Your task to perform on an android device: change the clock display to digital Image 0: 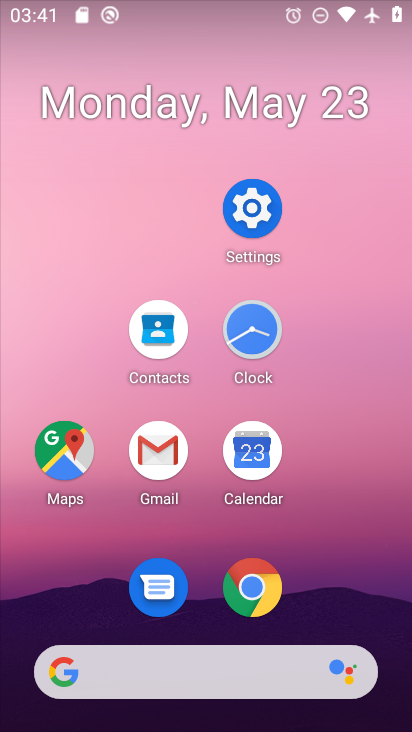
Step 0: click (252, 220)
Your task to perform on an android device: change the clock display to digital Image 1: 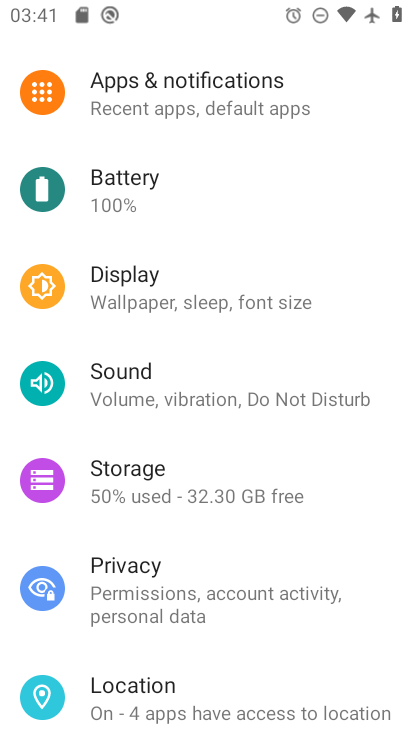
Step 1: click (237, 316)
Your task to perform on an android device: change the clock display to digital Image 2: 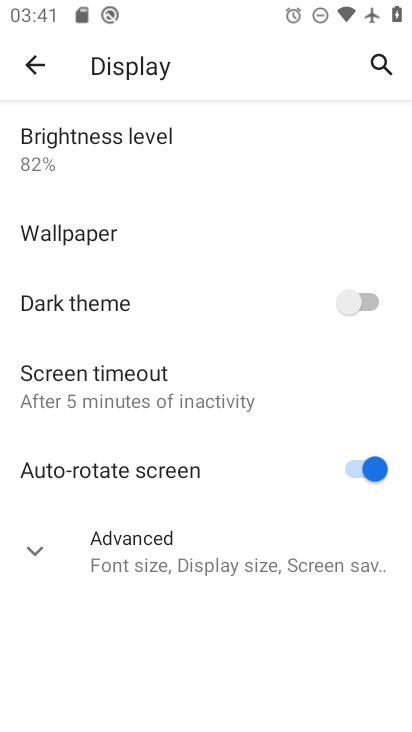
Step 2: press home button
Your task to perform on an android device: change the clock display to digital Image 3: 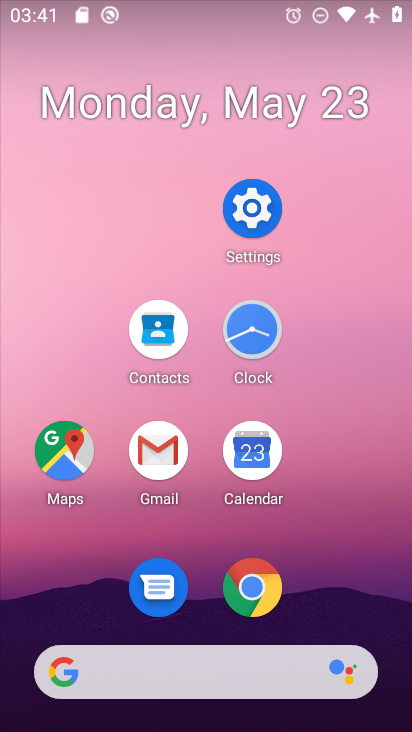
Step 3: click (243, 358)
Your task to perform on an android device: change the clock display to digital Image 4: 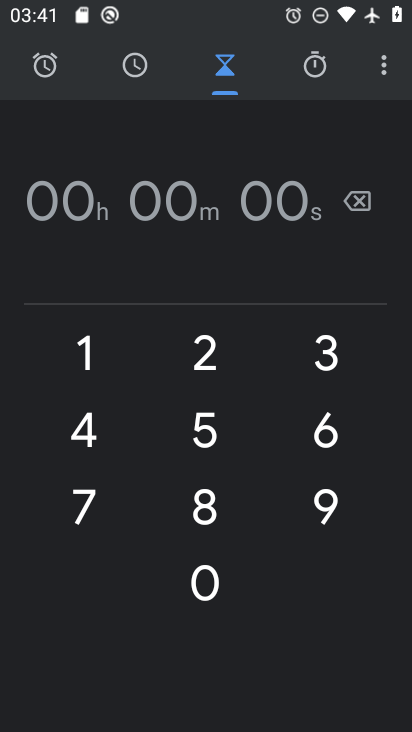
Step 4: click (390, 78)
Your task to perform on an android device: change the clock display to digital Image 5: 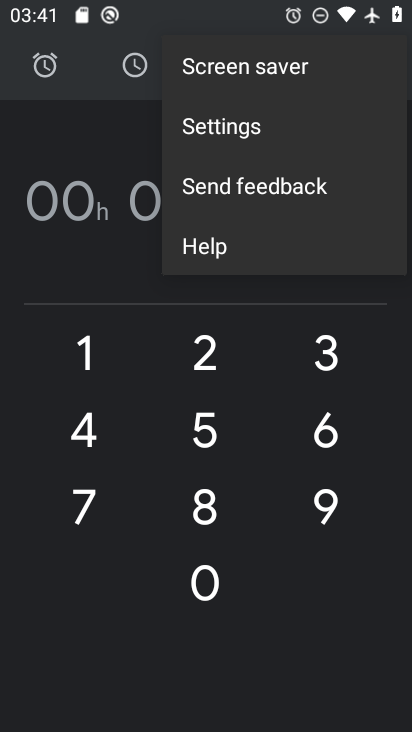
Step 5: click (246, 124)
Your task to perform on an android device: change the clock display to digital Image 6: 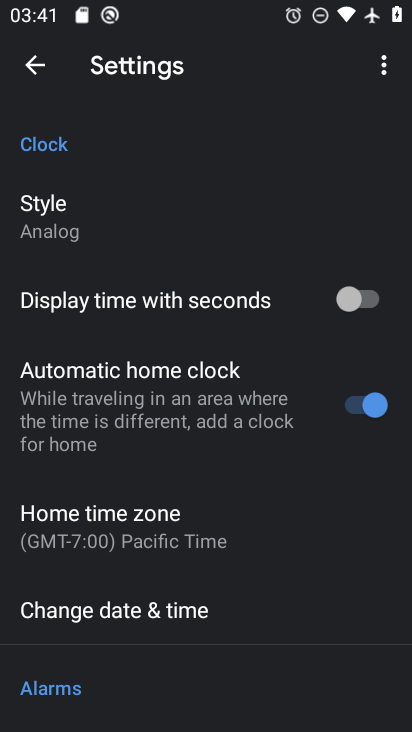
Step 6: click (163, 214)
Your task to perform on an android device: change the clock display to digital Image 7: 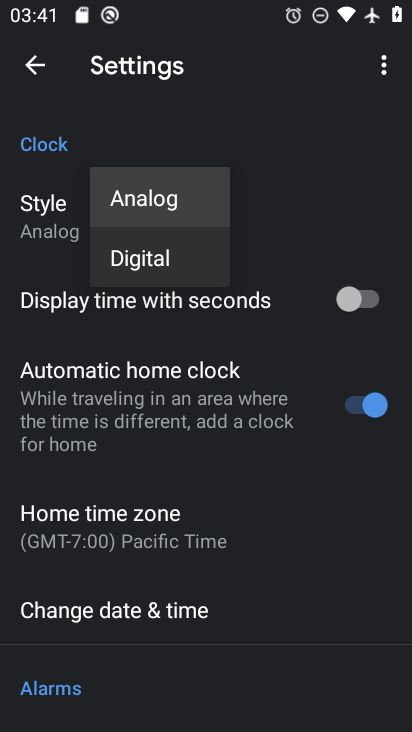
Step 7: click (156, 248)
Your task to perform on an android device: change the clock display to digital Image 8: 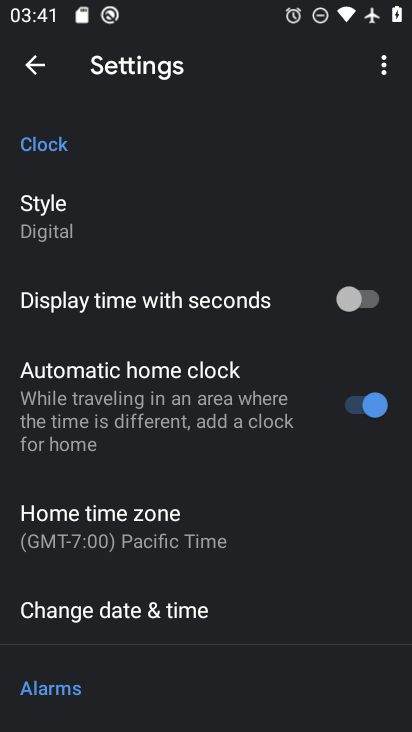
Step 8: task complete